Your task to perform on an android device: make emails show in primary in the gmail app Image 0: 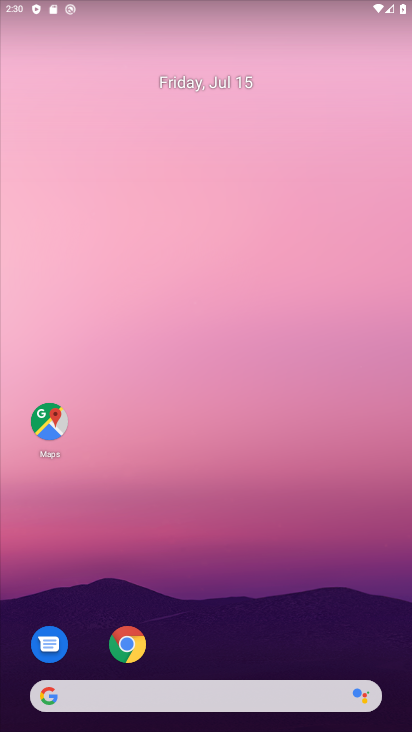
Step 0: drag from (268, 620) to (303, 19)
Your task to perform on an android device: make emails show in primary in the gmail app Image 1: 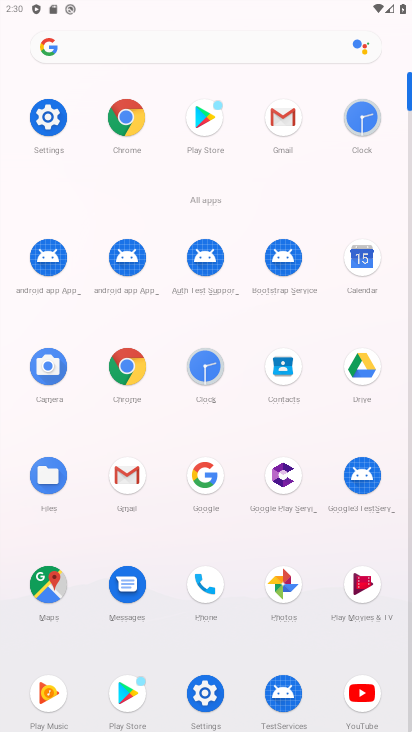
Step 1: click (291, 121)
Your task to perform on an android device: make emails show in primary in the gmail app Image 2: 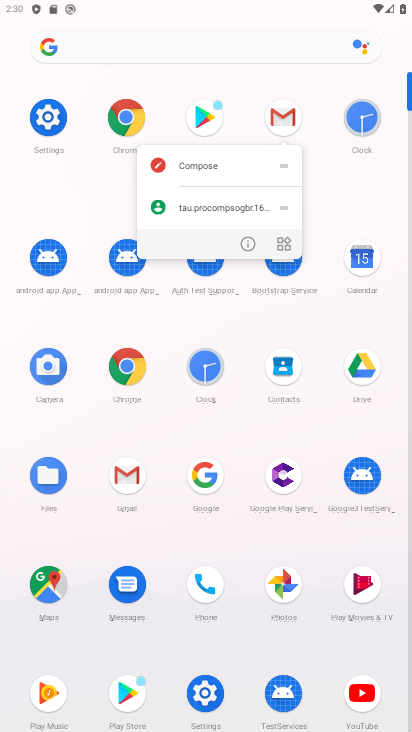
Step 2: click (286, 111)
Your task to perform on an android device: make emails show in primary in the gmail app Image 3: 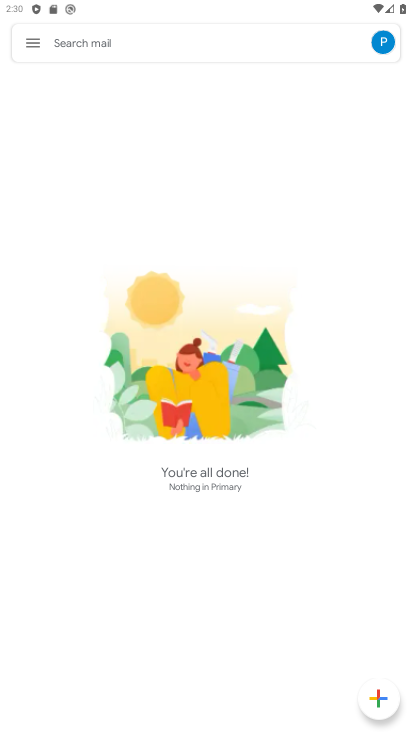
Step 3: click (38, 38)
Your task to perform on an android device: make emails show in primary in the gmail app Image 4: 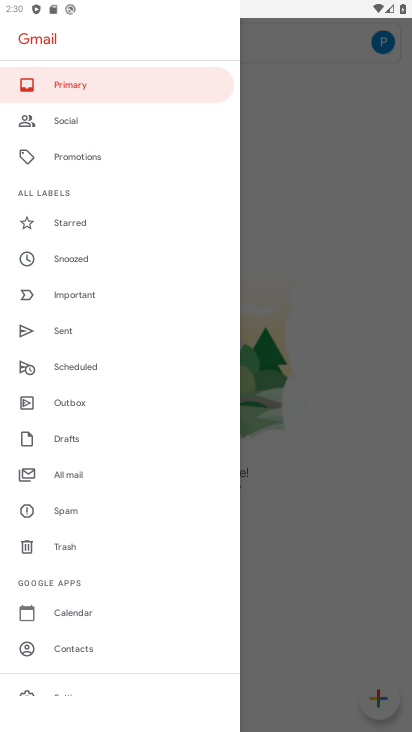
Step 4: drag from (72, 652) to (144, 190)
Your task to perform on an android device: make emails show in primary in the gmail app Image 5: 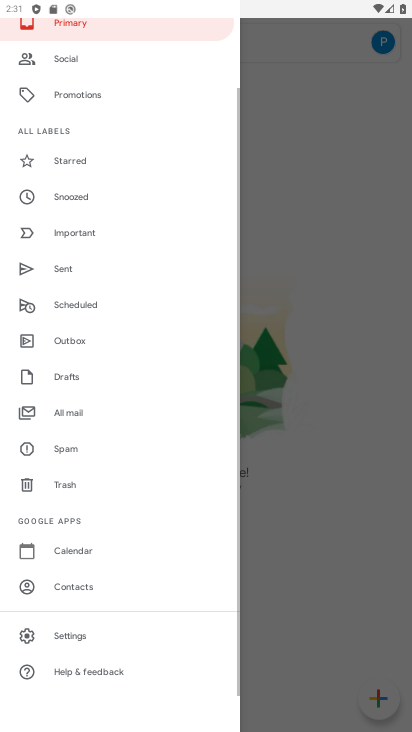
Step 5: click (78, 632)
Your task to perform on an android device: make emails show in primary in the gmail app Image 6: 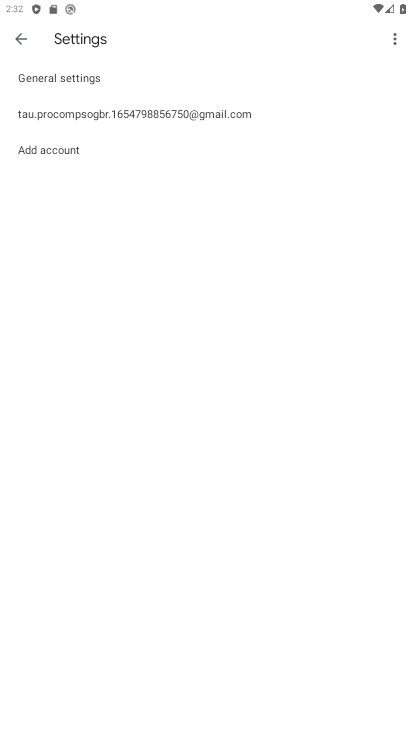
Step 6: click (84, 110)
Your task to perform on an android device: make emails show in primary in the gmail app Image 7: 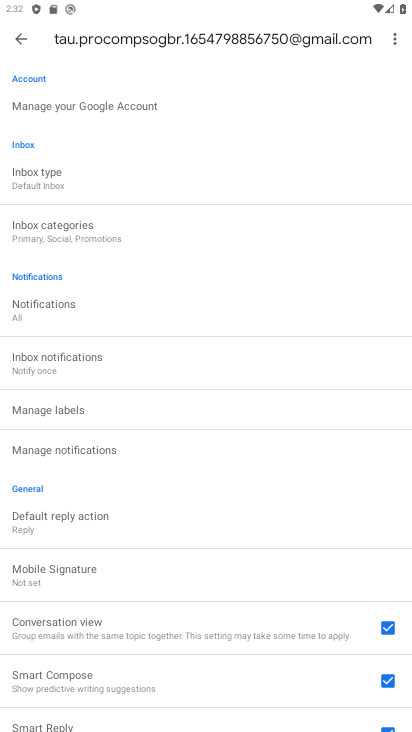
Step 7: task complete